Your task to perform on an android device: Open the phone app and click the voicemail tab. Image 0: 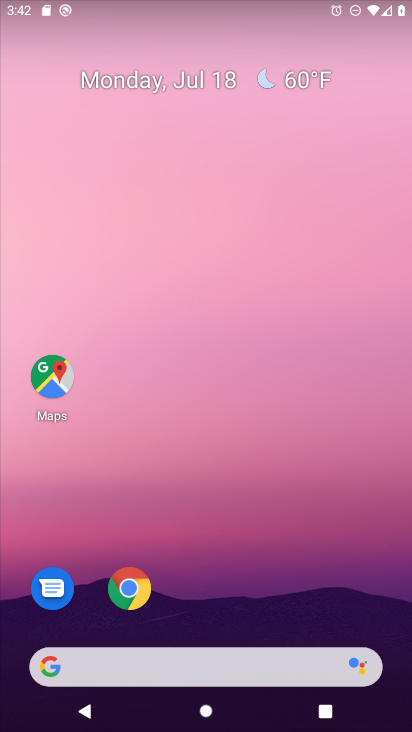
Step 0: press home button
Your task to perform on an android device: Open the phone app and click the voicemail tab. Image 1: 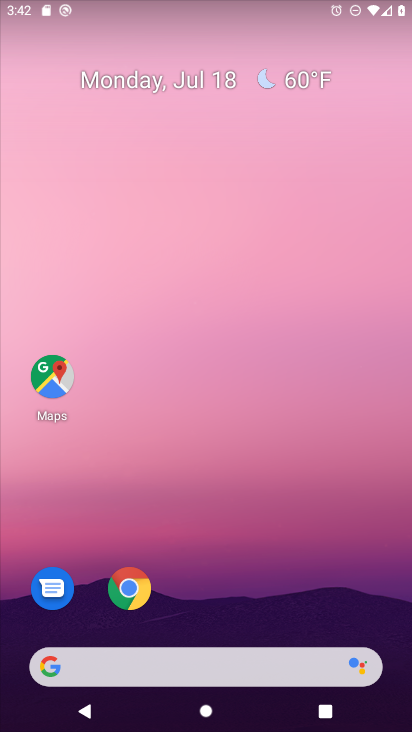
Step 1: drag from (203, 603) to (234, 7)
Your task to perform on an android device: Open the phone app and click the voicemail tab. Image 2: 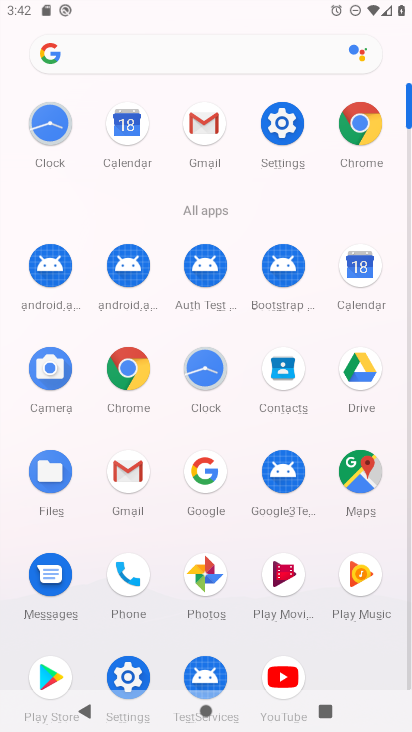
Step 2: click (138, 574)
Your task to perform on an android device: Open the phone app and click the voicemail tab. Image 3: 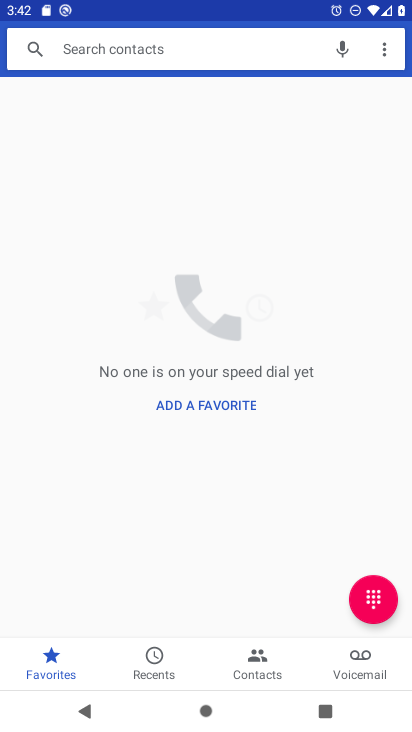
Step 3: click (338, 658)
Your task to perform on an android device: Open the phone app and click the voicemail tab. Image 4: 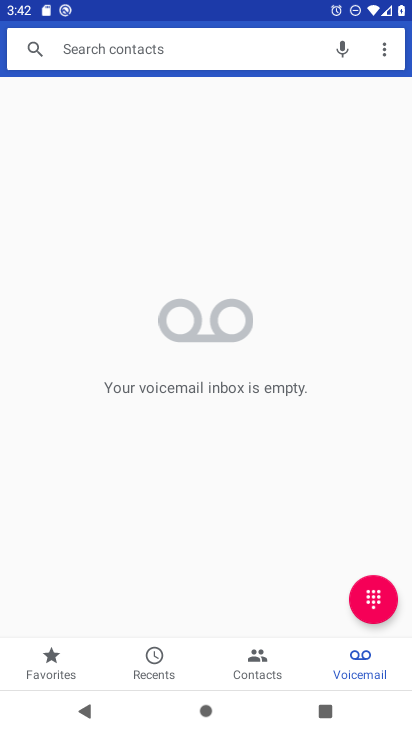
Step 4: task complete